Your task to perform on an android device: turn smart compose on in the gmail app Image 0: 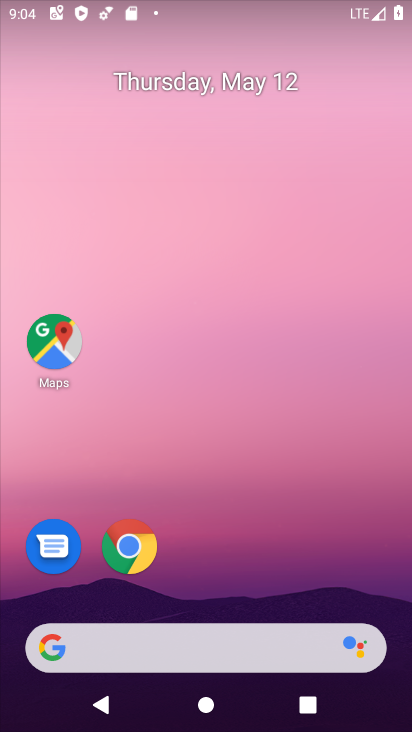
Step 0: drag from (209, 623) to (308, 61)
Your task to perform on an android device: turn smart compose on in the gmail app Image 1: 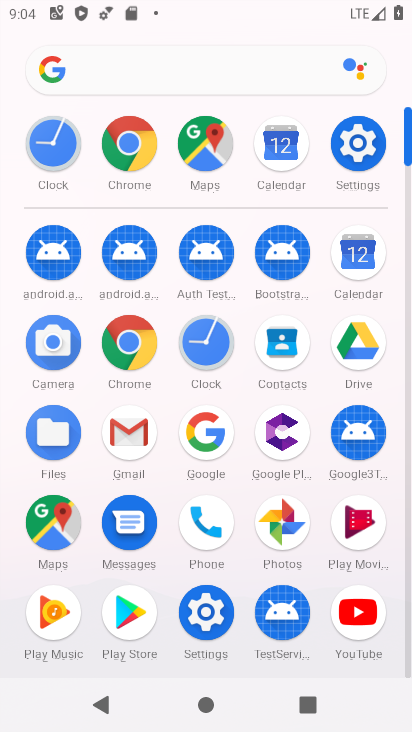
Step 1: click (125, 428)
Your task to perform on an android device: turn smart compose on in the gmail app Image 2: 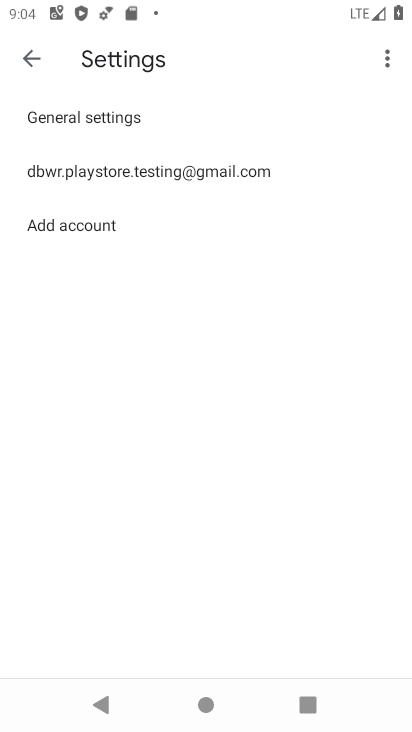
Step 2: click (158, 188)
Your task to perform on an android device: turn smart compose on in the gmail app Image 3: 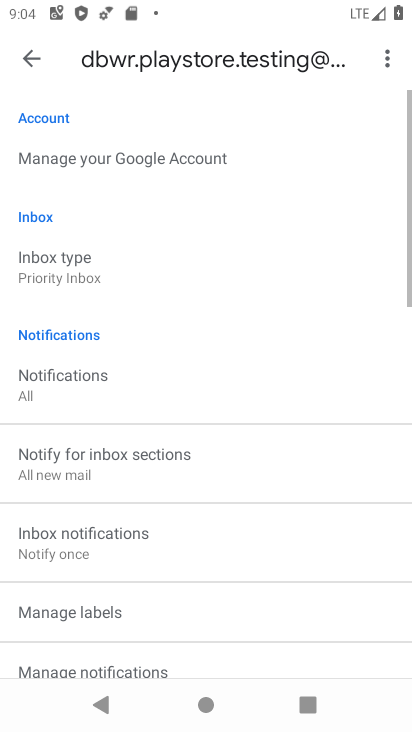
Step 3: task complete